Your task to perform on an android device: Empty the shopping cart on ebay.com. Search for logitech g910 on ebay.com, select the first entry, and add it to the cart. Image 0: 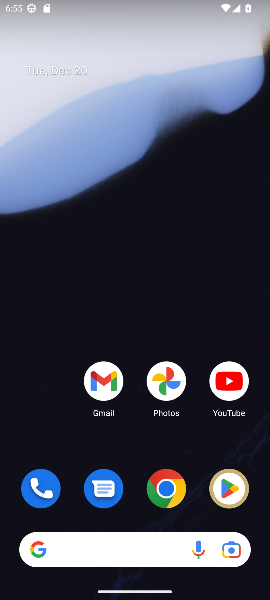
Step 0: press home button
Your task to perform on an android device: Empty the shopping cart on ebay.com. Search for logitech g910 on ebay.com, select the first entry, and add it to the cart. Image 1: 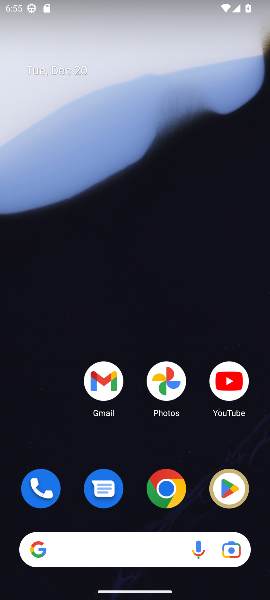
Step 1: drag from (50, 421) to (126, 4)
Your task to perform on an android device: Empty the shopping cart on ebay.com. Search for logitech g910 on ebay.com, select the first entry, and add it to the cart. Image 2: 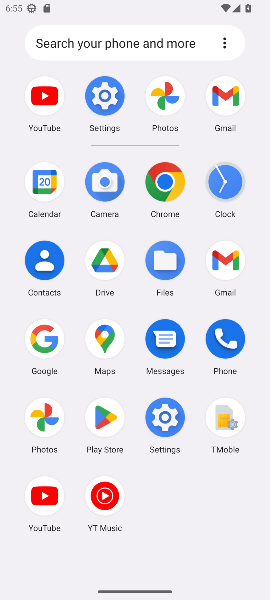
Step 2: click (41, 334)
Your task to perform on an android device: Empty the shopping cart on ebay.com. Search for logitech g910 on ebay.com, select the first entry, and add it to the cart. Image 3: 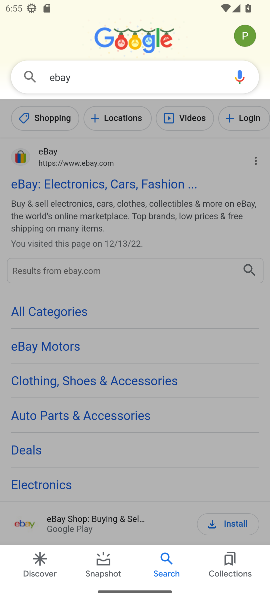
Step 3: click (105, 74)
Your task to perform on an android device: Empty the shopping cart on ebay.com. Search for logitech g910 on ebay.com, select the first entry, and add it to the cart. Image 4: 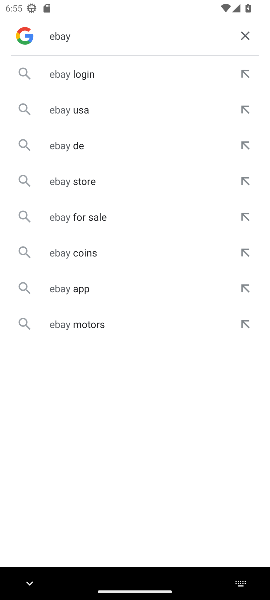
Step 4: click (244, 35)
Your task to perform on an android device: Empty the shopping cart on ebay.com. Search for logitech g910 on ebay.com, select the first entry, and add it to the cart. Image 5: 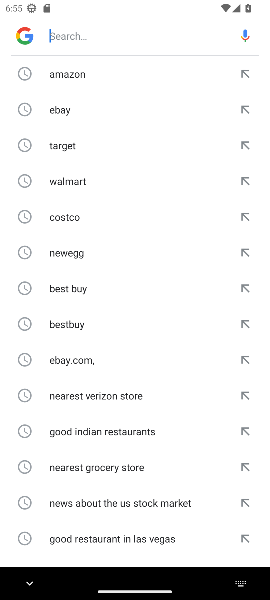
Step 5: type "ebay.com"
Your task to perform on an android device: Empty the shopping cart on ebay.com. Search for logitech g910 on ebay.com, select the first entry, and add it to the cart. Image 6: 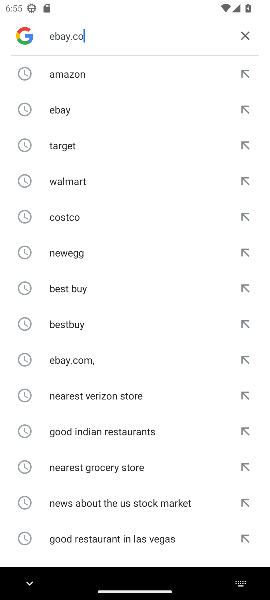
Step 6: press enter
Your task to perform on an android device: Empty the shopping cart on ebay.com. Search for logitech g910 on ebay.com, select the first entry, and add it to the cart. Image 7: 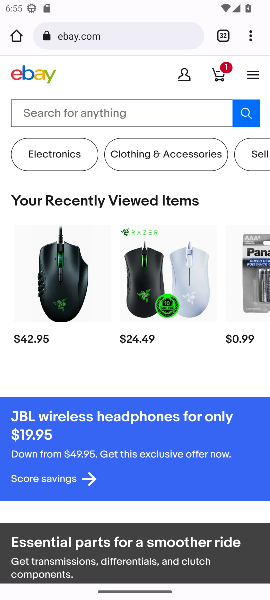
Step 7: click (218, 72)
Your task to perform on an android device: Empty the shopping cart on ebay.com. Search for logitech g910 on ebay.com, select the first entry, and add it to the cart. Image 8: 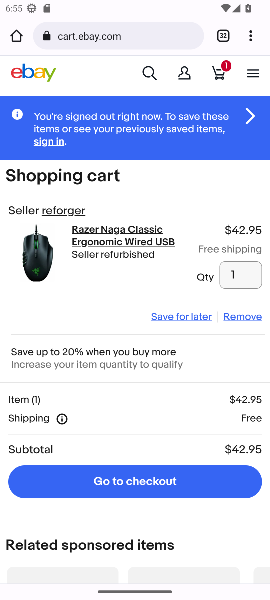
Step 8: click (238, 317)
Your task to perform on an android device: Empty the shopping cart on ebay.com. Search for logitech g910 on ebay.com, select the first entry, and add it to the cart. Image 9: 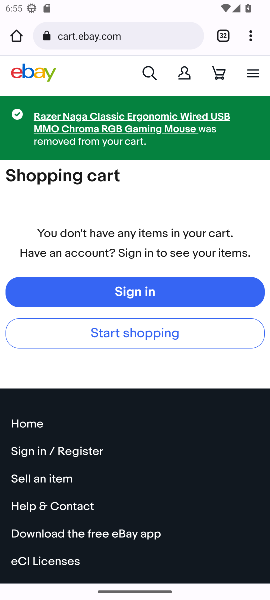
Step 9: click (146, 69)
Your task to perform on an android device: Empty the shopping cart on ebay.com. Search for logitech g910 on ebay.com, select the first entry, and add it to the cart. Image 10: 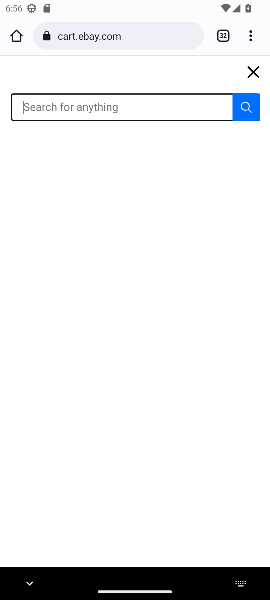
Step 10: type "logitech g910"
Your task to perform on an android device: Empty the shopping cart on ebay.com. Search for logitech g910 on ebay.com, select the first entry, and add it to the cart. Image 11: 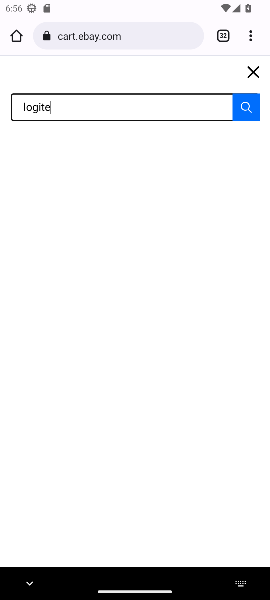
Step 11: press enter
Your task to perform on an android device: Empty the shopping cart on ebay.com. Search for logitech g910 on ebay.com, select the first entry, and add it to the cart. Image 12: 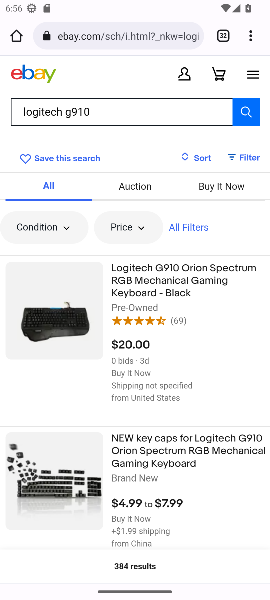
Step 12: click (152, 290)
Your task to perform on an android device: Empty the shopping cart on ebay.com. Search for logitech g910 on ebay.com, select the first entry, and add it to the cart. Image 13: 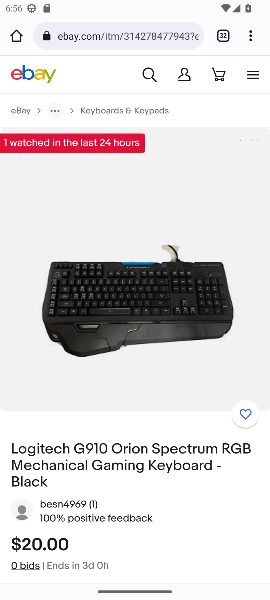
Step 13: drag from (162, 494) to (153, 233)
Your task to perform on an android device: Empty the shopping cart on ebay.com. Search for logitech g910 on ebay.com, select the first entry, and add it to the cart. Image 14: 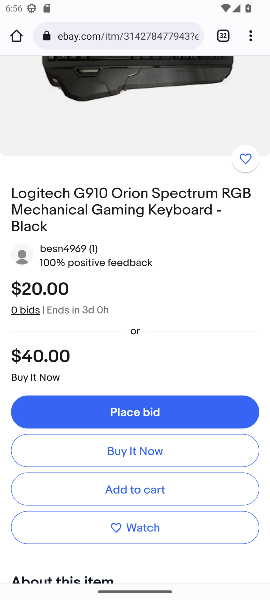
Step 14: click (133, 490)
Your task to perform on an android device: Empty the shopping cart on ebay.com. Search for logitech g910 on ebay.com, select the first entry, and add it to the cart. Image 15: 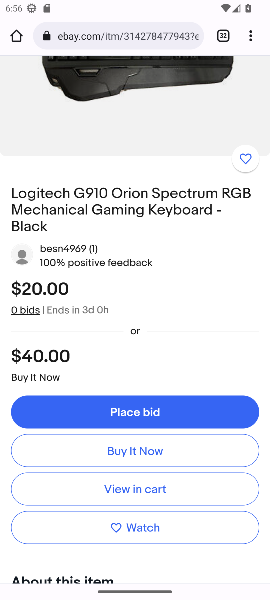
Step 15: task complete